Your task to perform on an android device: Open privacy settings Image 0: 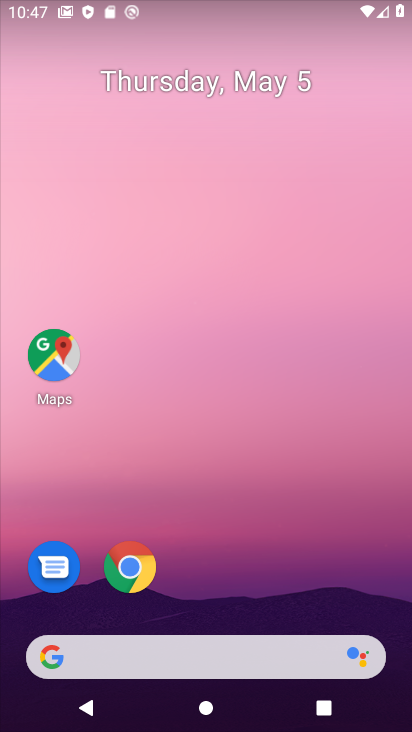
Step 0: drag from (215, 562) to (315, 8)
Your task to perform on an android device: Open privacy settings Image 1: 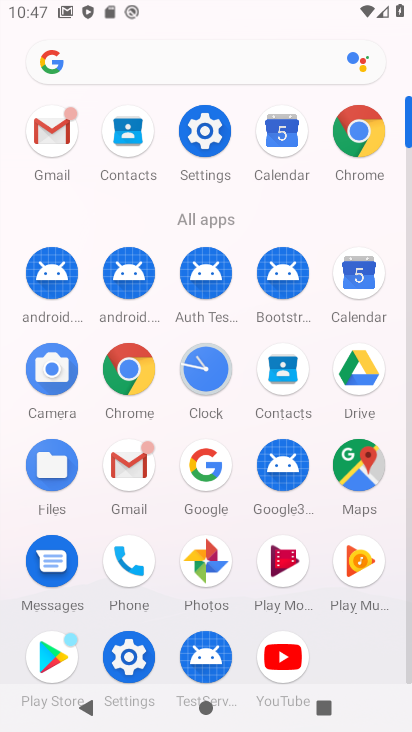
Step 1: click (206, 111)
Your task to perform on an android device: Open privacy settings Image 2: 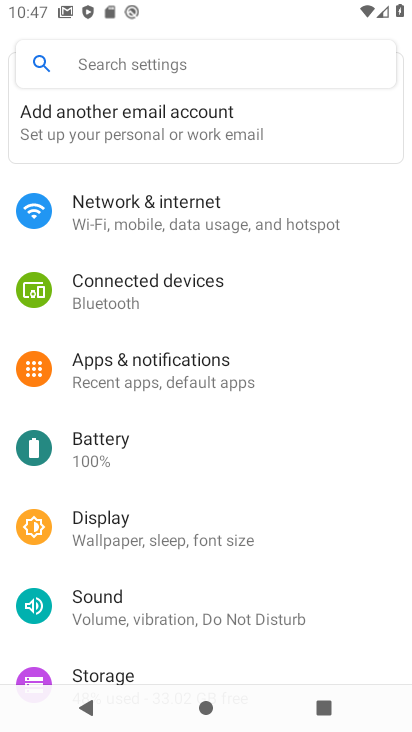
Step 2: drag from (135, 601) to (289, 70)
Your task to perform on an android device: Open privacy settings Image 3: 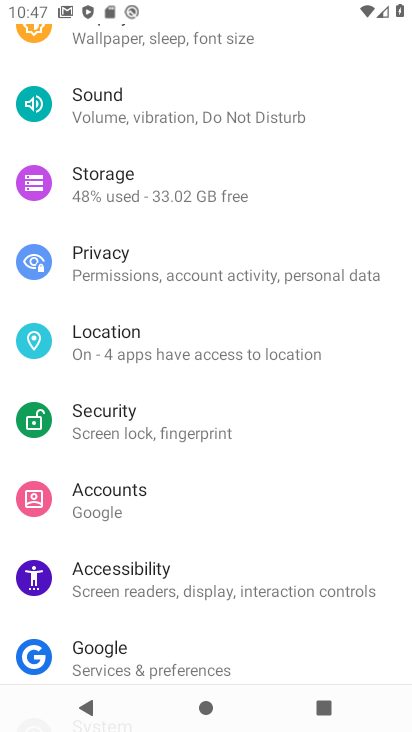
Step 3: click (101, 664)
Your task to perform on an android device: Open privacy settings Image 4: 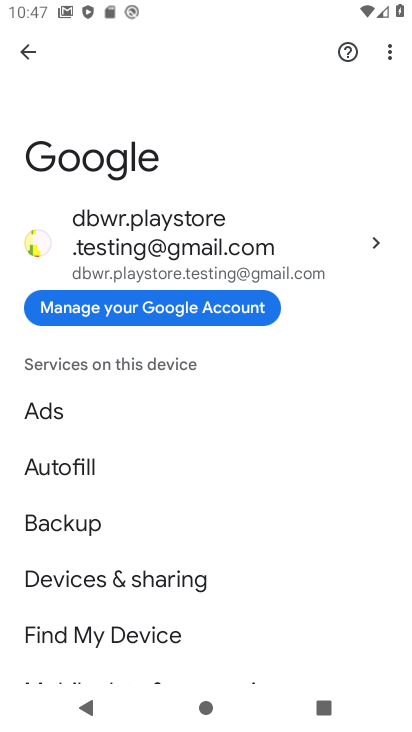
Step 4: press back button
Your task to perform on an android device: Open privacy settings Image 5: 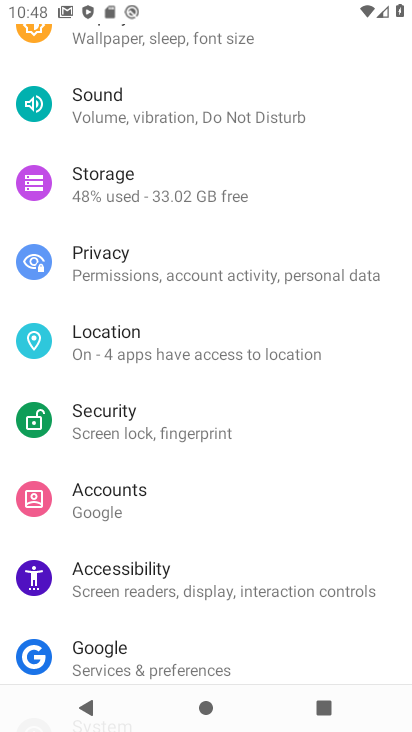
Step 5: click (127, 263)
Your task to perform on an android device: Open privacy settings Image 6: 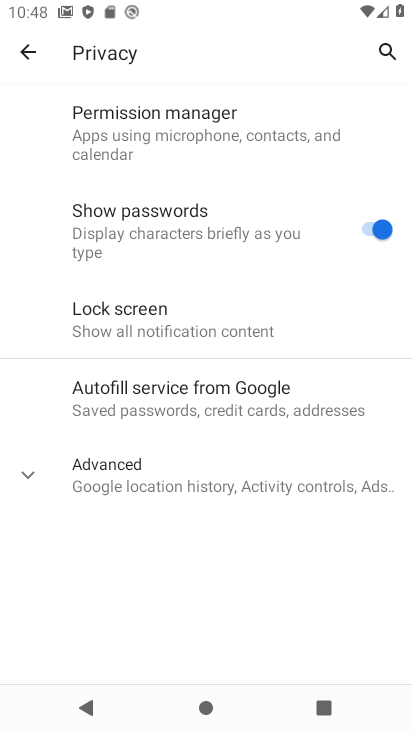
Step 6: task complete